Your task to perform on an android device: open app "Google Docs" (install if not already installed) Image 0: 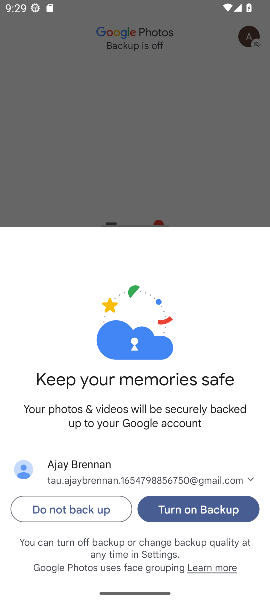
Step 0: press home button
Your task to perform on an android device: open app "Google Docs" (install if not already installed) Image 1: 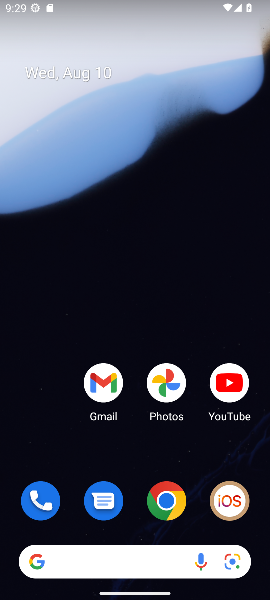
Step 1: drag from (138, 518) to (178, 184)
Your task to perform on an android device: open app "Google Docs" (install if not already installed) Image 2: 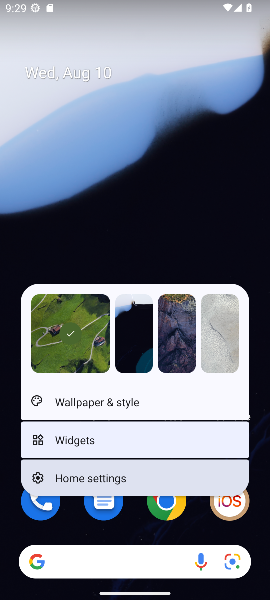
Step 2: click (178, 184)
Your task to perform on an android device: open app "Google Docs" (install if not already installed) Image 3: 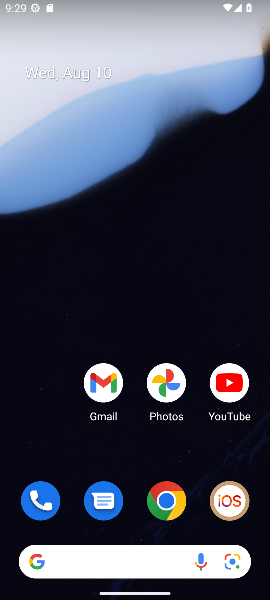
Step 3: drag from (136, 538) to (185, 42)
Your task to perform on an android device: open app "Google Docs" (install if not already installed) Image 4: 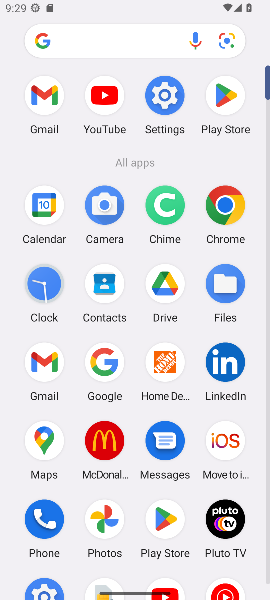
Step 4: click (269, 496)
Your task to perform on an android device: open app "Google Docs" (install if not already installed) Image 5: 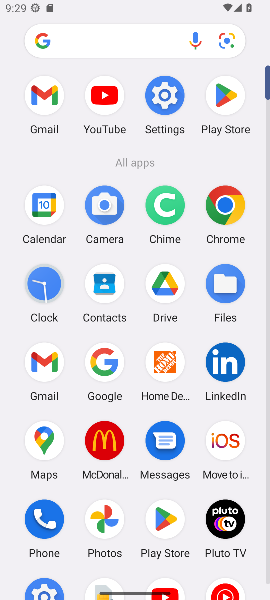
Step 5: click (269, 496)
Your task to perform on an android device: open app "Google Docs" (install if not already installed) Image 6: 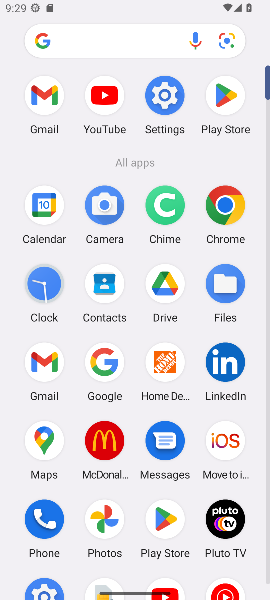
Step 6: click (269, 496)
Your task to perform on an android device: open app "Google Docs" (install if not already installed) Image 7: 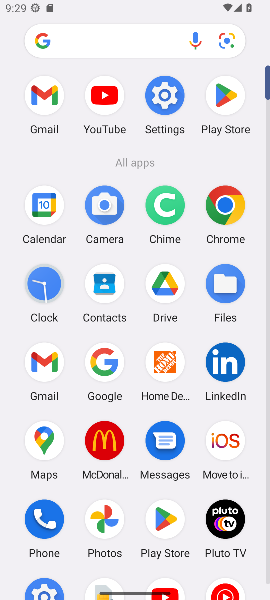
Step 7: drag from (143, 567) to (174, 261)
Your task to perform on an android device: open app "Google Docs" (install if not already installed) Image 8: 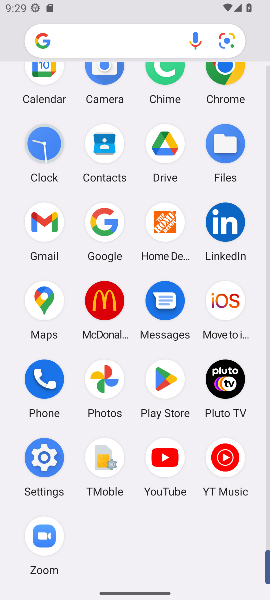
Step 8: drag from (138, 300) to (133, 594)
Your task to perform on an android device: open app "Google Docs" (install if not already installed) Image 9: 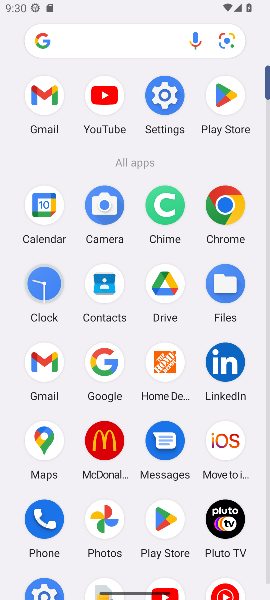
Step 9: click (214, 114)
Your task to perform on an android device: open app "Google Docs" (install if not already installed) Image 10: 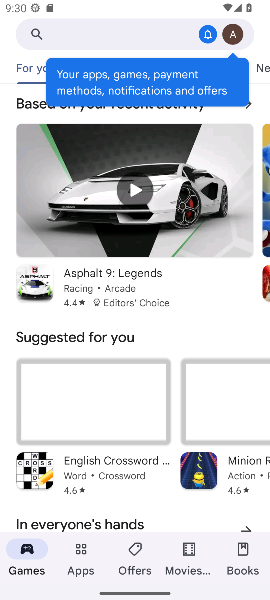
Step 10: click (162, 48)
Your task to perform on an android device: open app "Google Docs" (install if not already installed) Image 11: 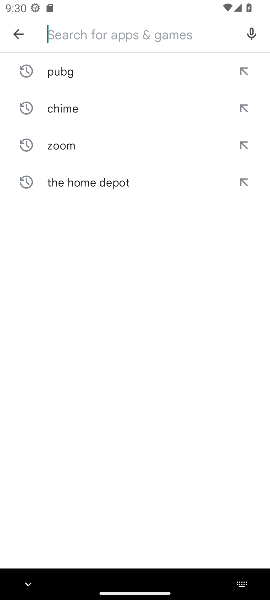
Step 11: type "google doc"
Your task to perform on an android device: open app "Google Docs" (install if not already installed) Image 12: 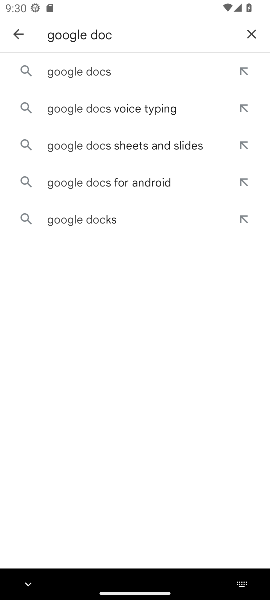
Step 12: click (113, 76)
Your task to perform on an android device: open app "Google Docs" (install if not already installed) Image 13: 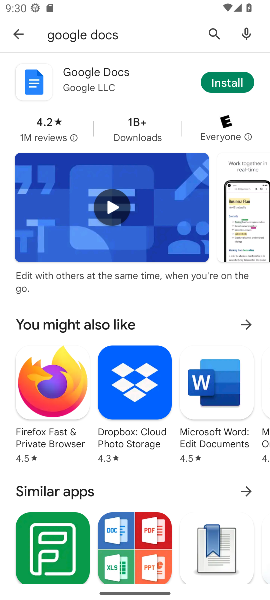
Step 13: click (211, 88)
Your task to perform on an android device: open app "Google Docs" (install if not already installed) Image 14: 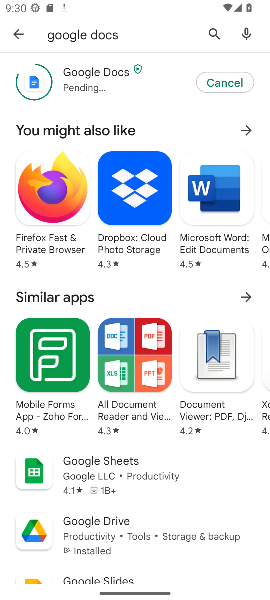
Step 14: task complete